Your task to perform on an android device: delete a single message in the gmail app Image 0: 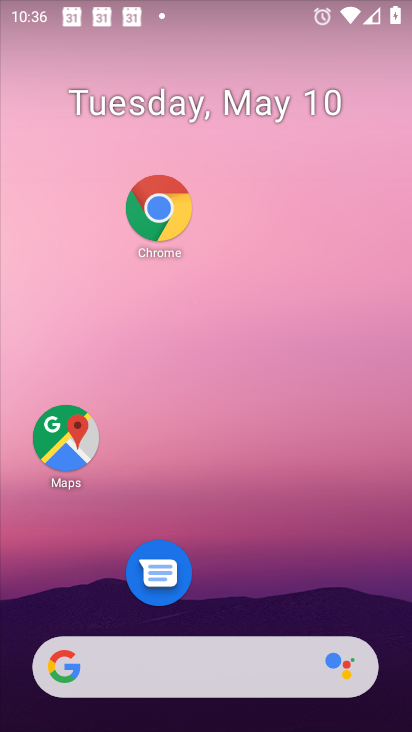
Step 0: press home button
Your task to perform on an android device: delete a single message in the gmail app Image 1: 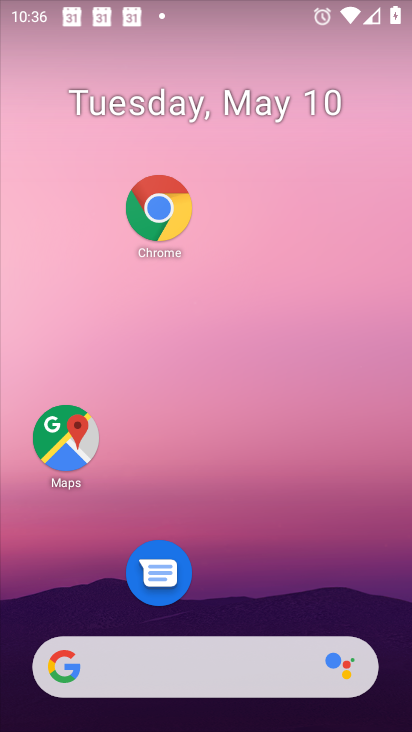
Step 1: drag from (274, 712) to (250, 318)
Your task to perform on an android device: delete a single message in the gmail app Image 2: 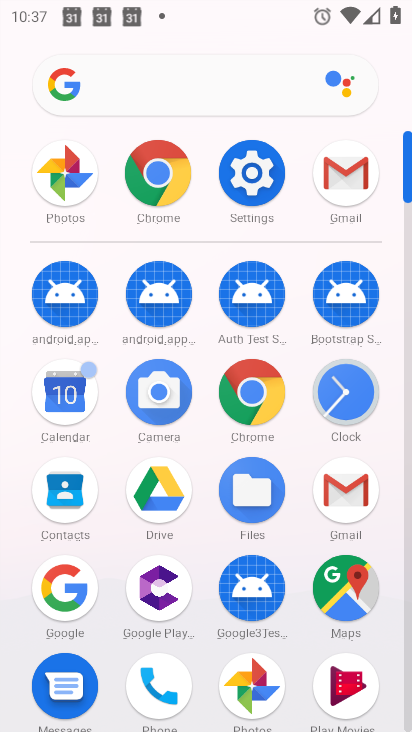
Step 2: click (333, 491)
Your task to perform on an android device: delete a single message in the gmail app Image 3: 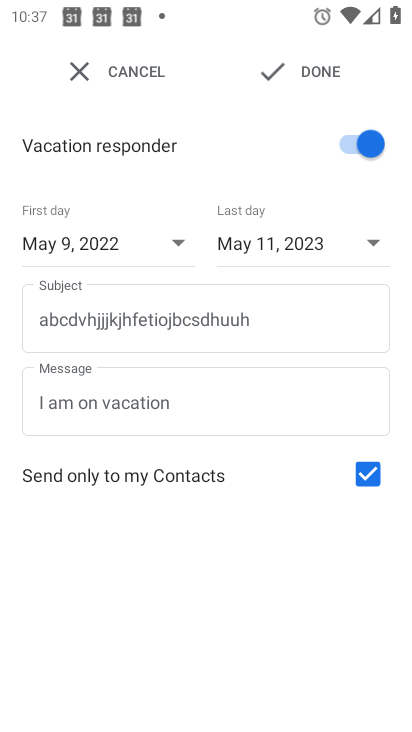
Step 3: click (82, 79)
Your task to perform on an android device: delete a single message in the gmail app Image 4: 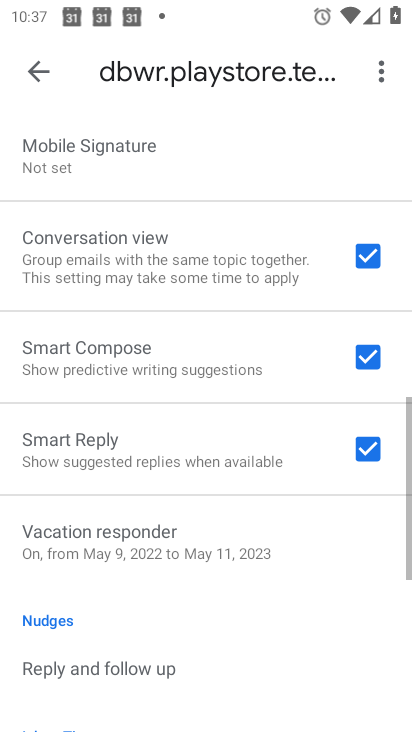
Step 4: click (45, 68)
Your task to perform on an android device: delete a single message in the gmail app Image 5: 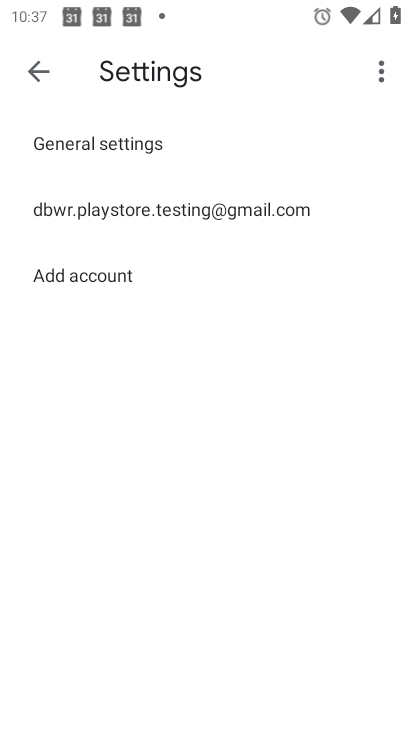
Step 5: click (33, 65)
Your task to perform on an android device: delete a single message in the gmail app Image 6: 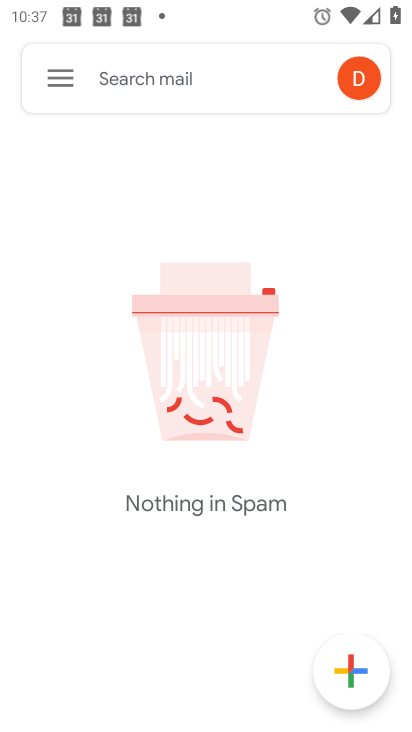
Step 6: click (42, 76)
Your task to perform on an android device: delete a single message in the gmail app Image 7: 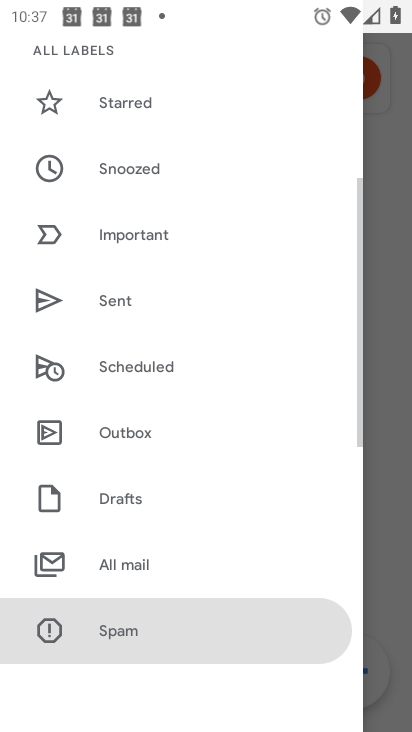
Step 7: click (150, 563)
Your task to perform on an android device: delete a single message in the gmail app Image 8: 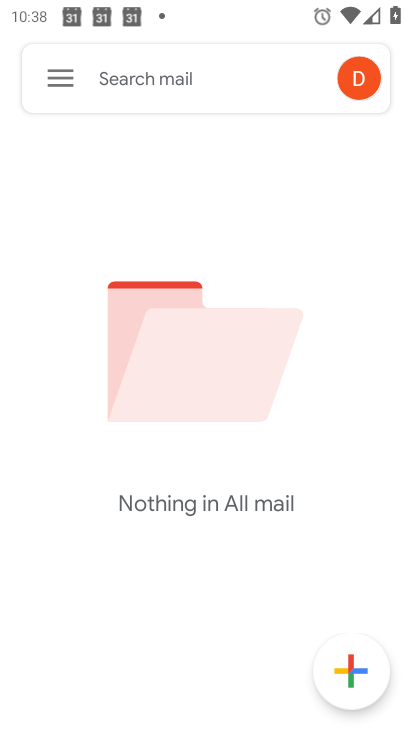
Step 8: task complete